Your task to perform on an android device: Search for a coffee table on IKEA Image 0: 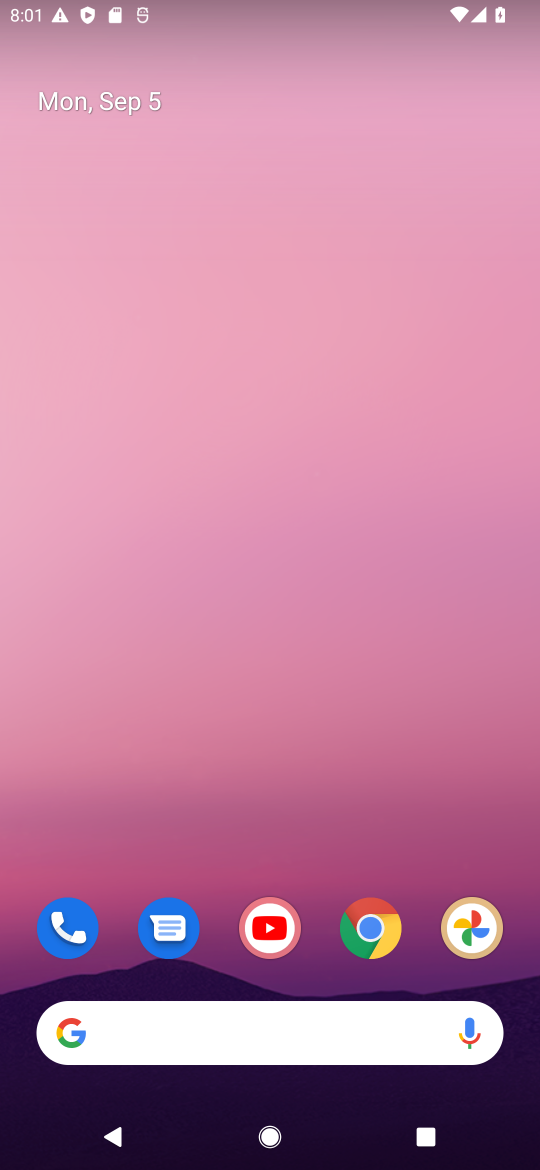
Step 0: click (367, 939)
Your task to perform on an android device: Search for a coffee table on IKEA Image 1: 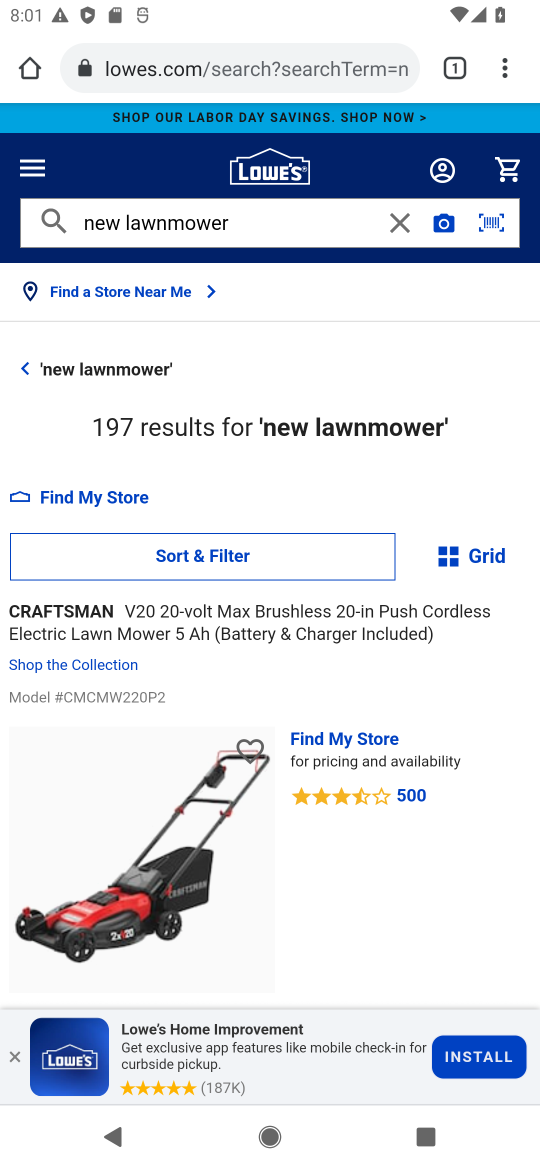
Step 1: click (312, 70)
Your task to perform on an android device: Search for a coffee table on IKEA Image 2: 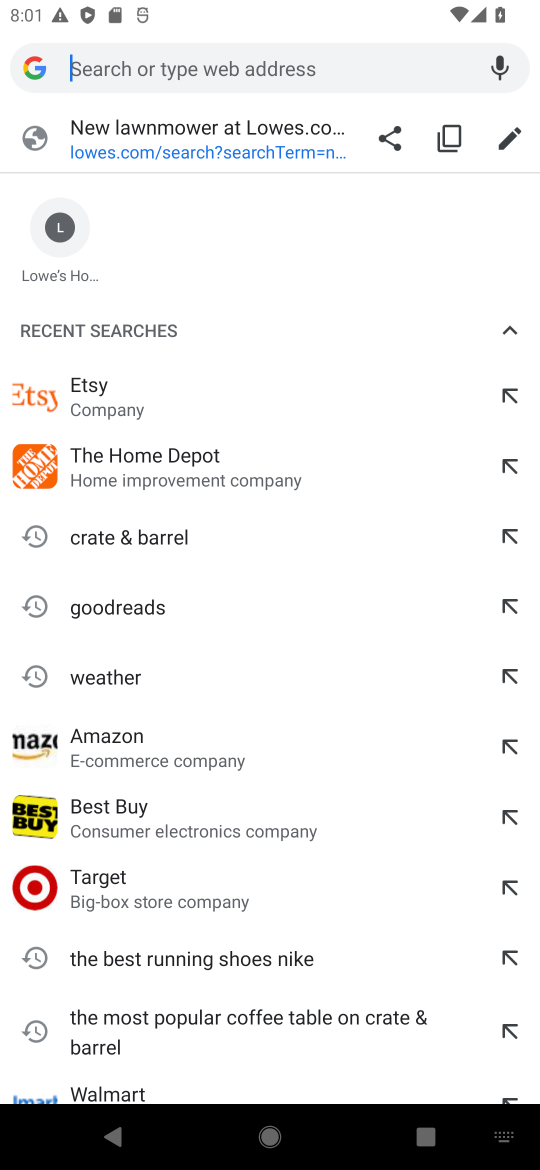
Step 2: type "ikea"
Your task to perform on an android device: Search for a coffee table on IKEA Image 3: 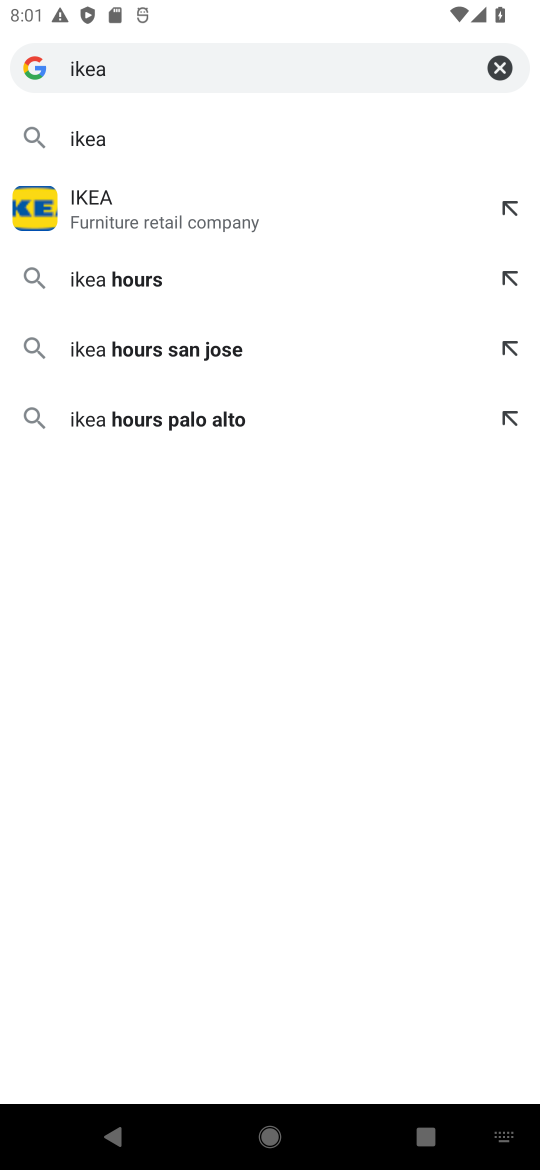
Step 3: click (143, 217)
Your task to perform on an android device: Search for a coffee table on IKEA Image 4: 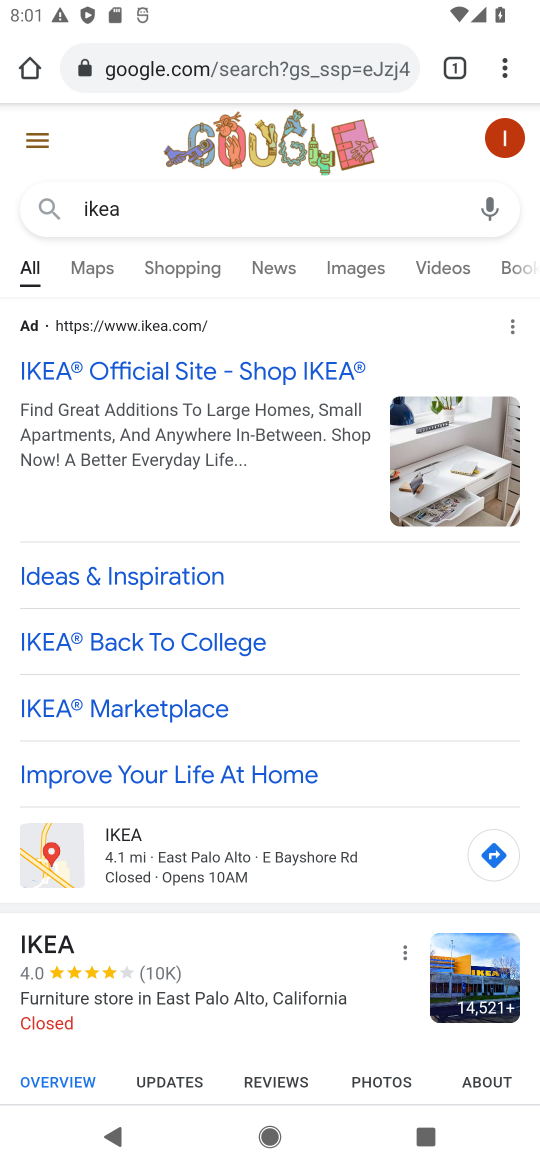
Step 4: click (121, 375)
Your task to perform on an android device: Search for a coffee table on IKEA Image 5: 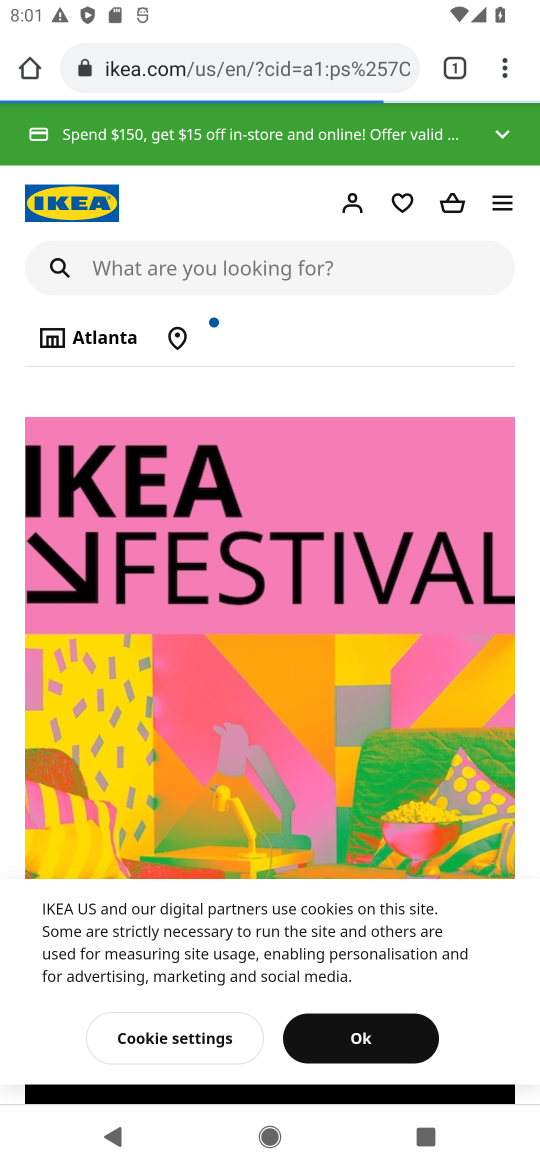
Step 5: click (252, 275)
Your task to perform on an android device: Search for a coffee table on IKEA Image 6: 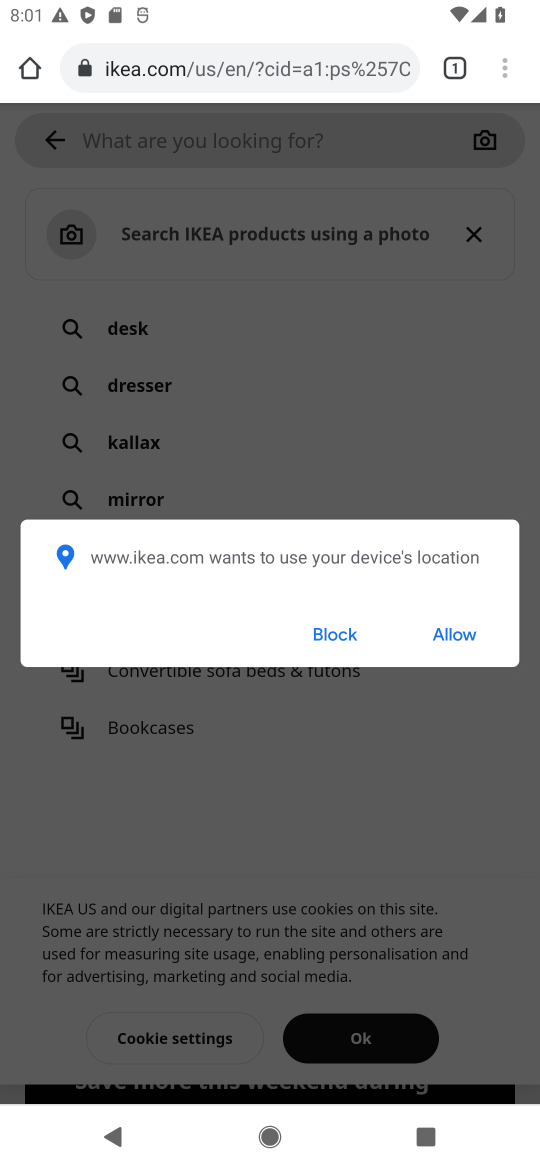
Step 6: type "coffee table"
Your task to perform on an android device: Search for a coffee table on IKEA Image 7: 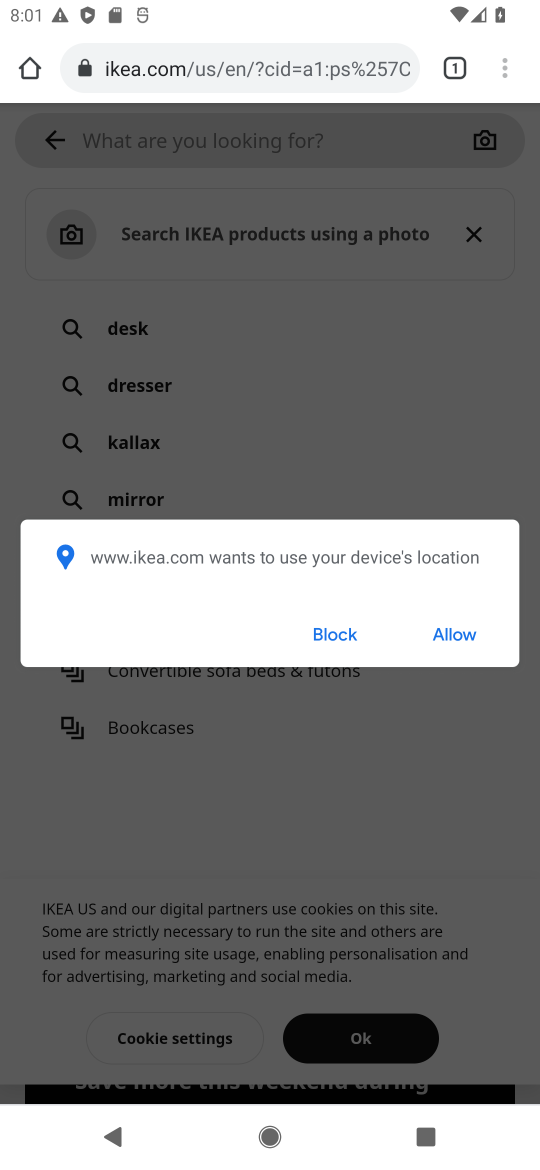
Step 7: click (400, 750)
Your task to perform on an android device: Search for a coffee table on IKEA Image 8: 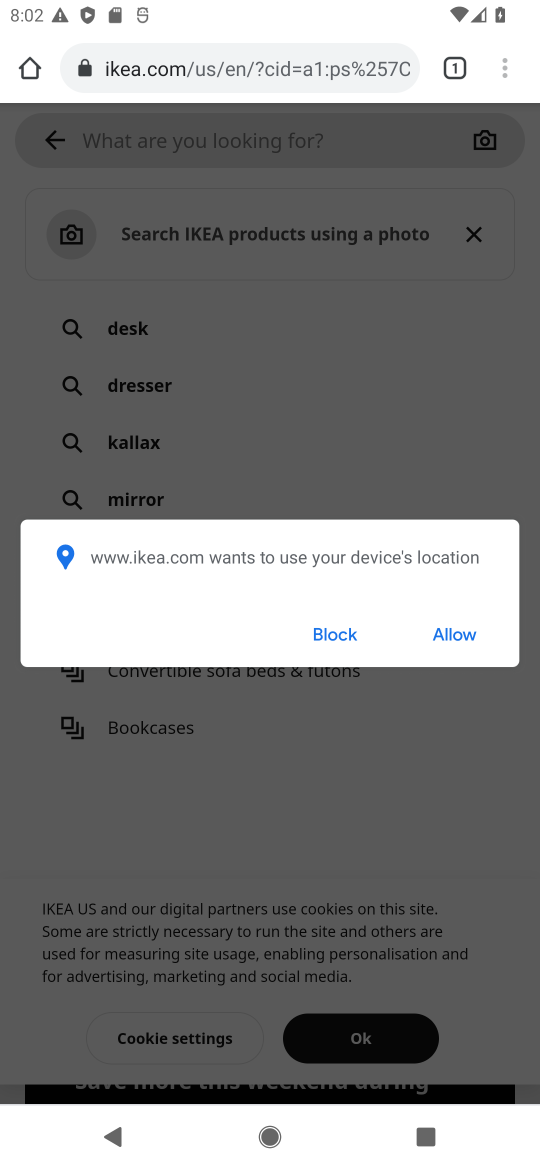
Step 8: click (462, 640)
Your task to perform on an android device: Search for a coffee table on IKEA Image 9: 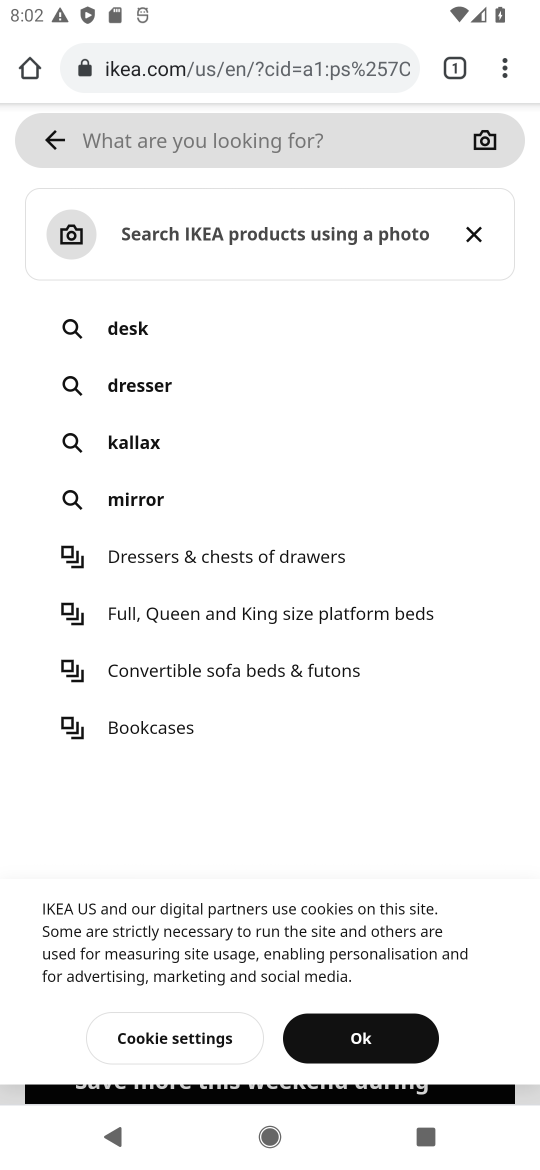
Step 9: type "coffee table"
Your task to perform on an android device: Search for a coffee table on IKEA Image 10: 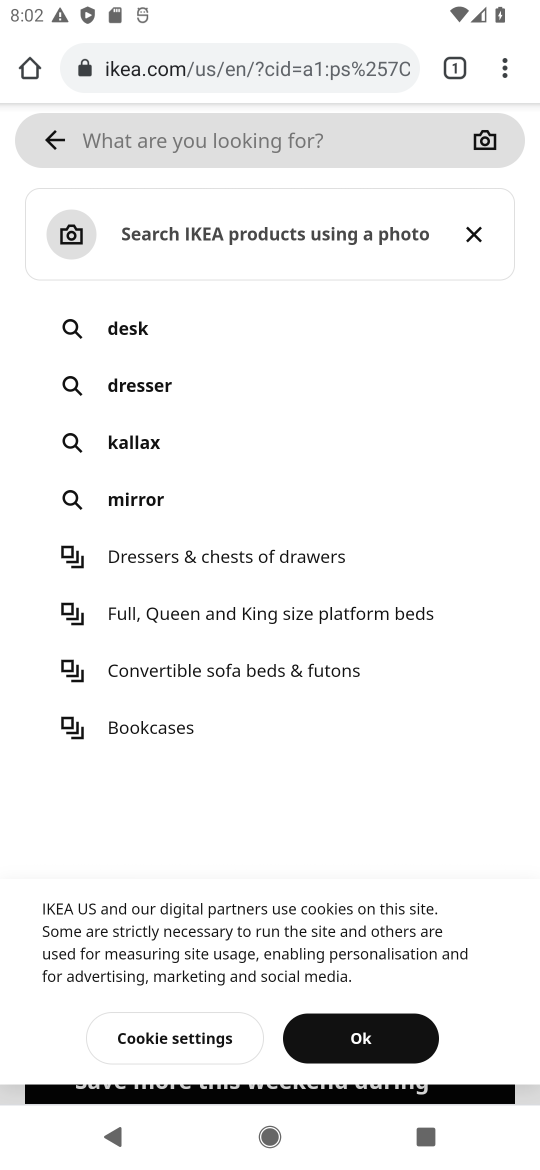
Step 10: click (315, 139)
Your task to perform on an android device: Search for a coffee table on IKEA Image 11: 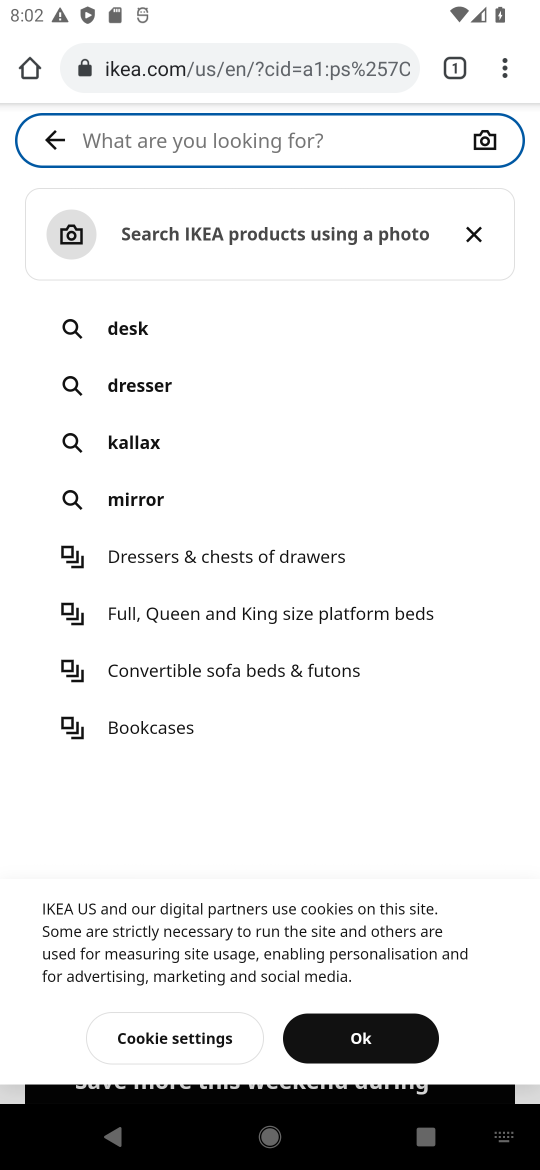
Step 11: type "coffee table"
Your task to perform on an android device: Search for a coffee table on IKEA Image 12: 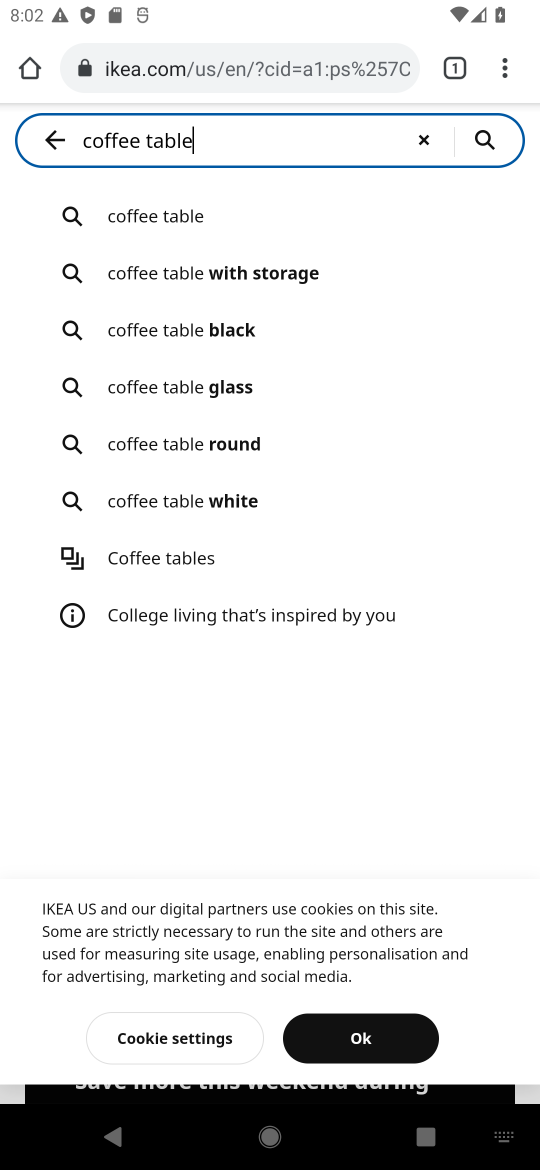
Step 12: click (131, 221)
Your task to perform on an android device: Search for a coffee table on IKEA Image 13: 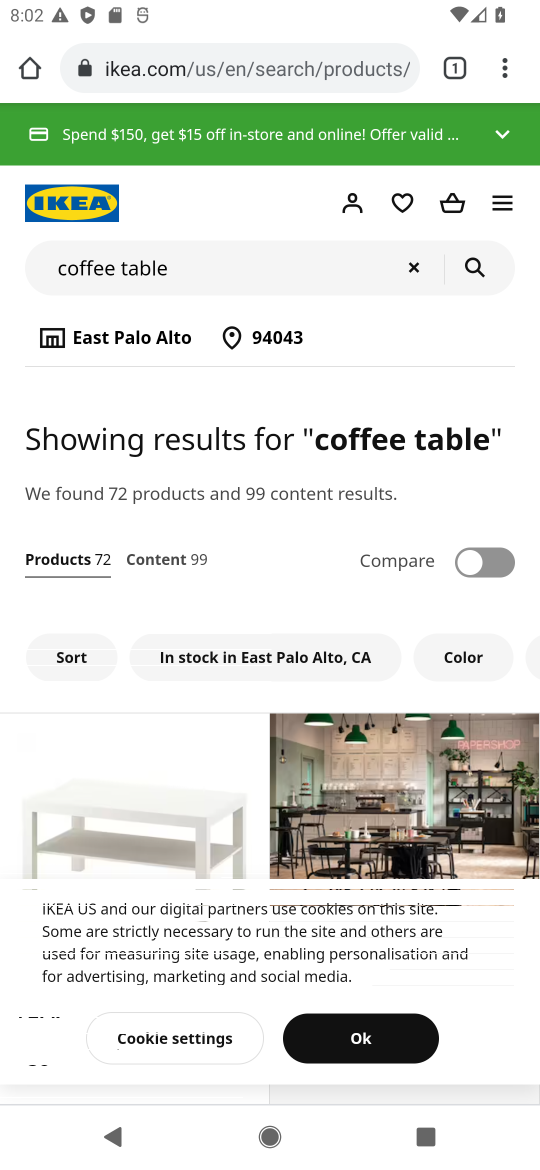
Step 13: task complete